Your task to perform on an android device: Open notification settings Image 0: 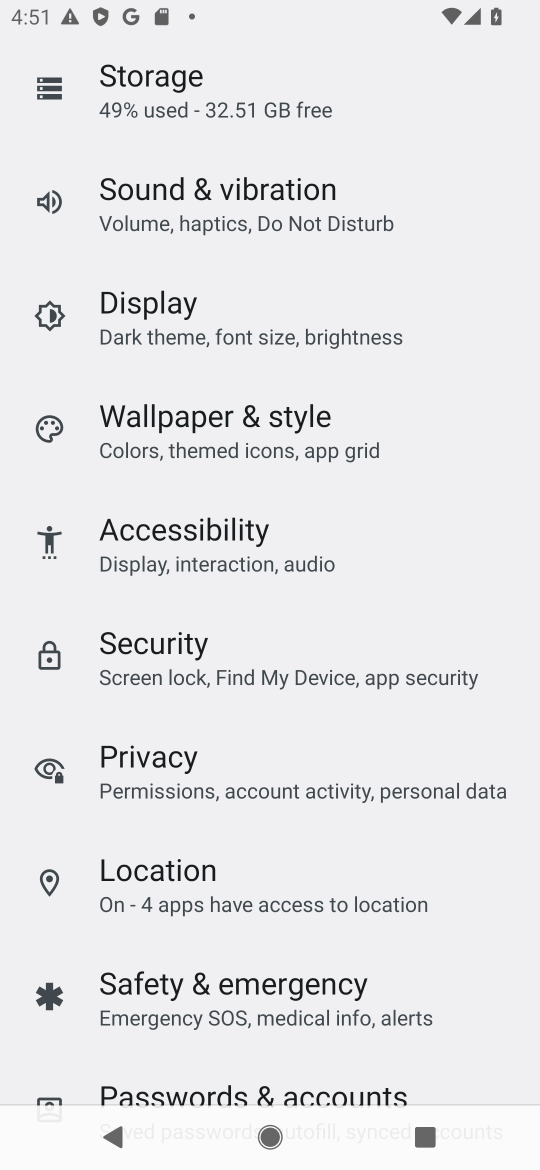
Step 0: press home button
Your task to perform on an android device: Open notification settings Image 1: 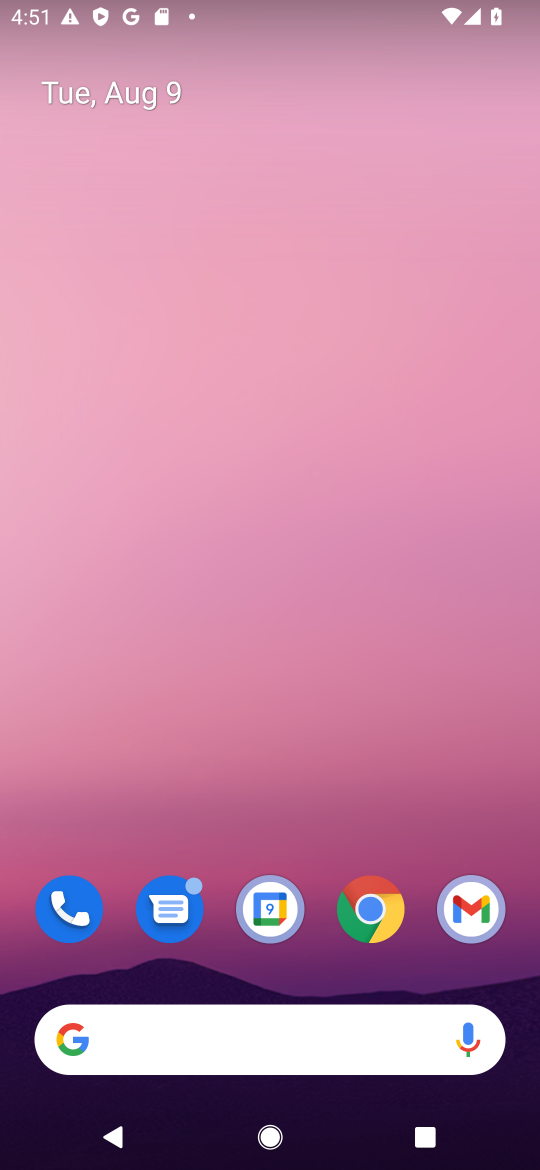
Step 1: drag from (340, 834) to (375, 105)
Your task to perform on an android device: Open notification settings Image 2: 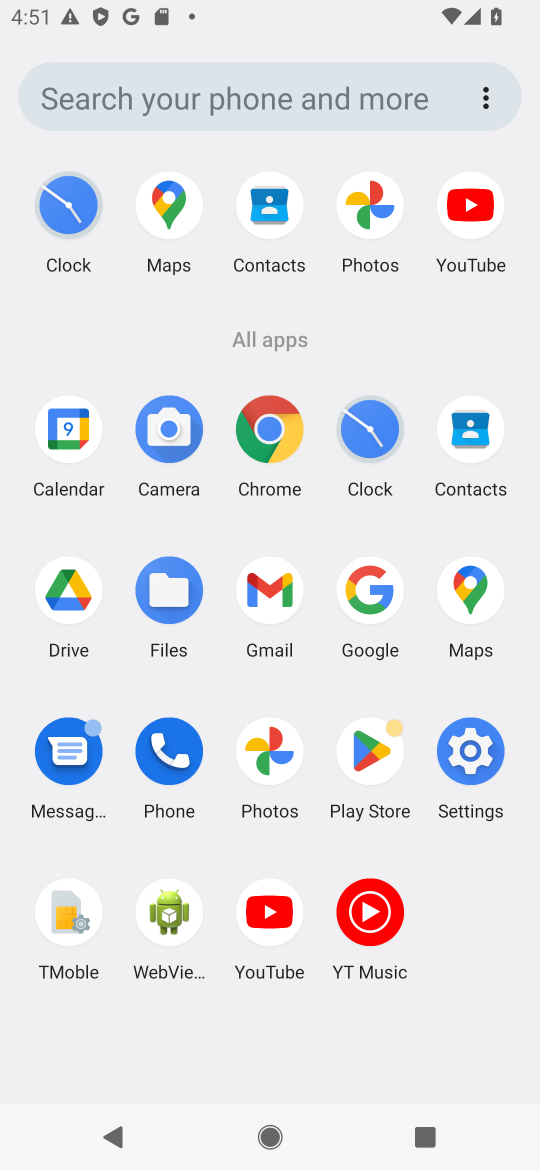
Step 2: click (470, 744)
Your task to perform on an android device: Open notification settings Image 3: 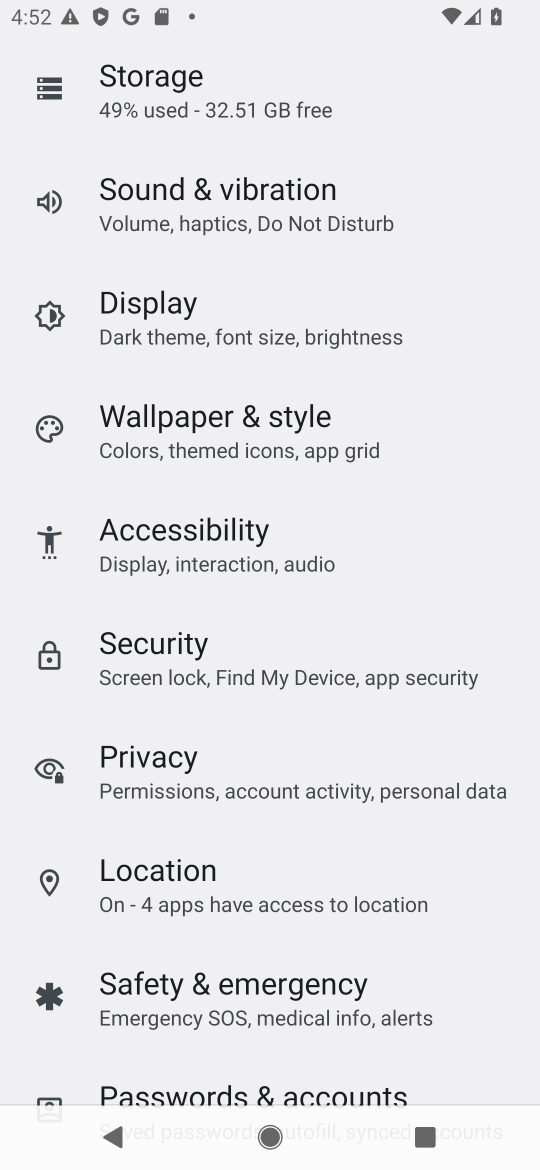
Step 3: drag from (328, 371) to (328, 1035)
Your task to perform on an android device: Open notification settings Image 4: 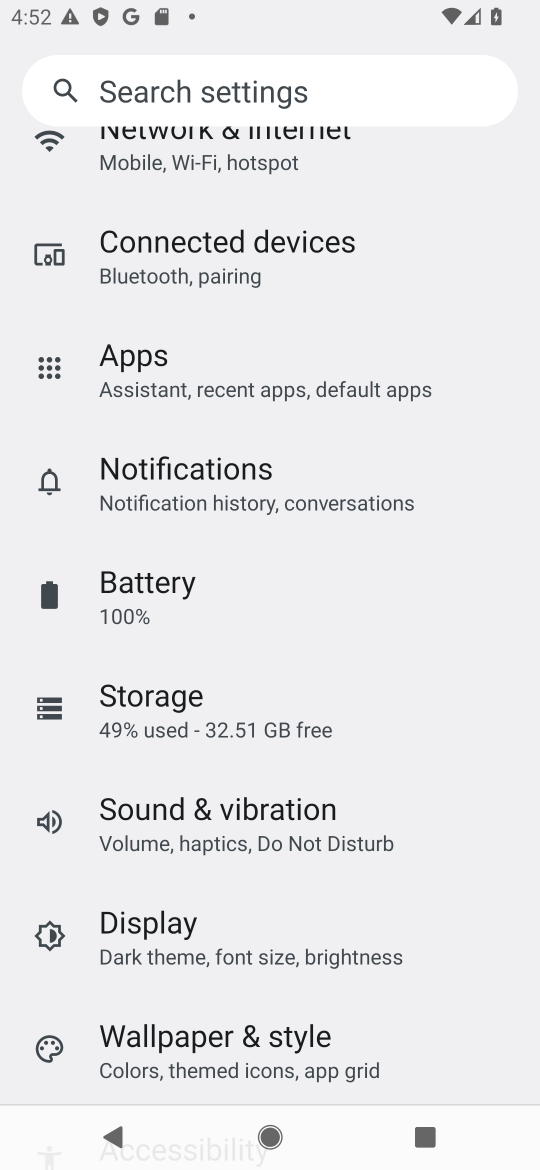
Step 4: click (228, 506)
Your task to perform on an android device: Open notification settings Image 5: 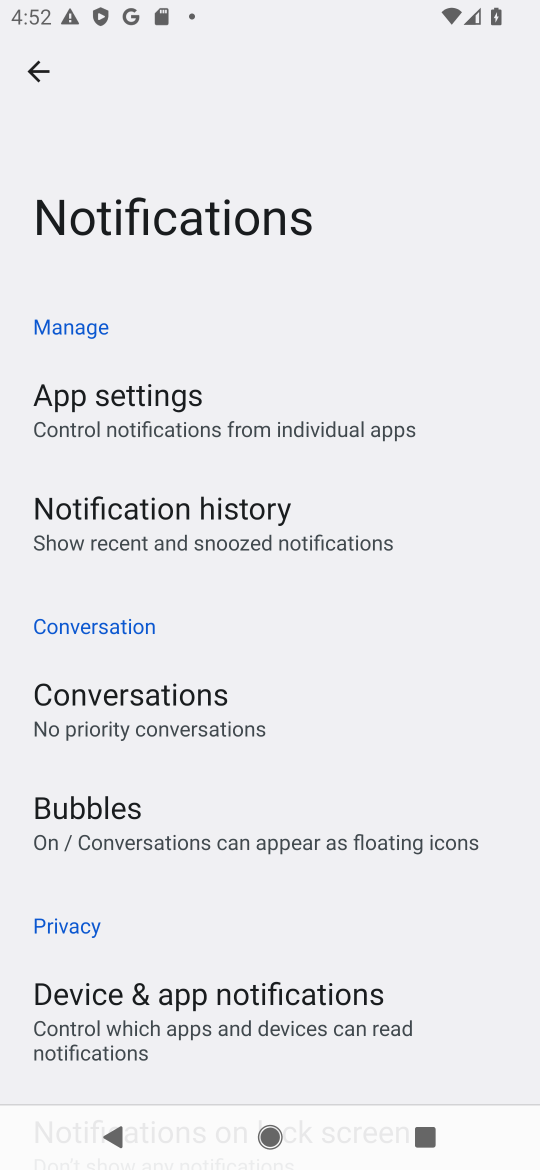
Step 5: task complete